Your task to perform on an android device: turn pop-ups on in chrome Image 0: 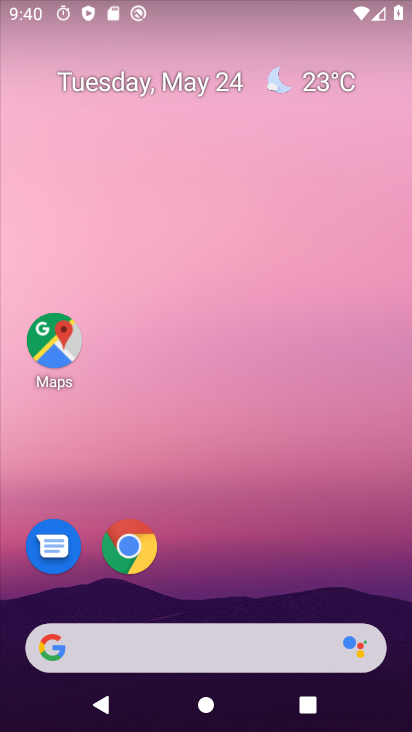
Step 0: click (130, 546)
Your task to perform on an android device: turn pop-ups on in chrome Image 1: 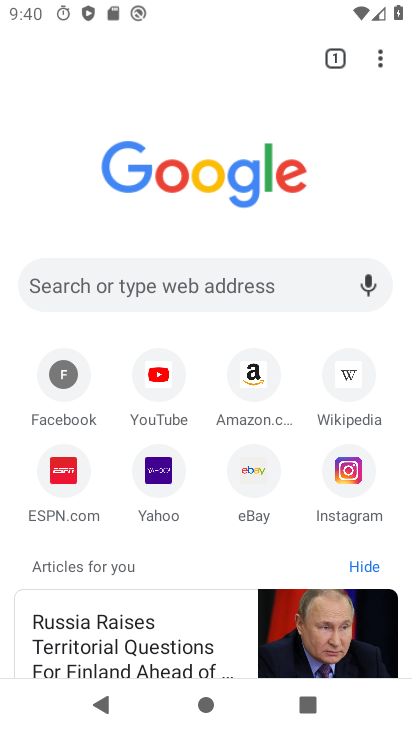
Step 1: click (370, 57)
Your task to perform on an android device: turn pop-ups on in chrome Image 2: 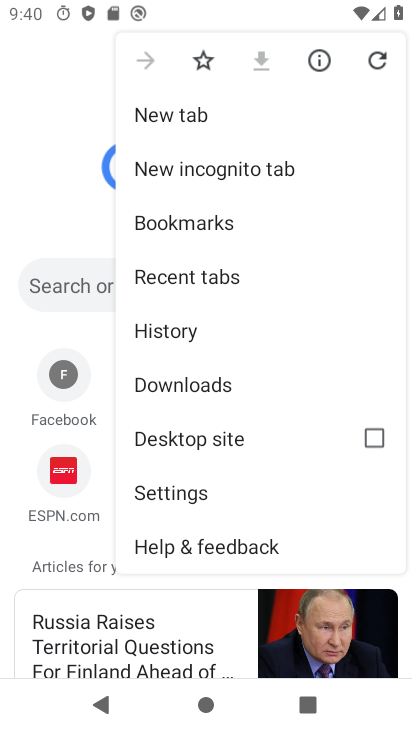
Step 2: click (203, 493)
Your task to perform on an android device: turn pop-ups on in chrome Image 3: 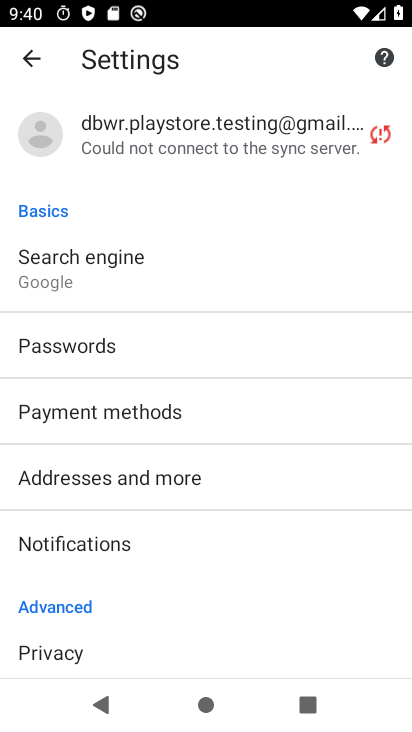
Step 3: drag from (244, 644) to (202, 210)
Your task to perform on an android device: turn pop-ups on in chrome Image 4: 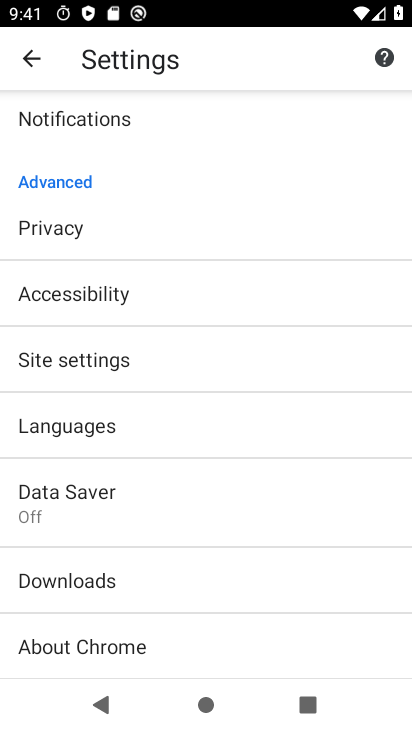
Step 4: click (98, 365)
Your task to perform on an android device: turn pop-ups on in chrome Image 5: 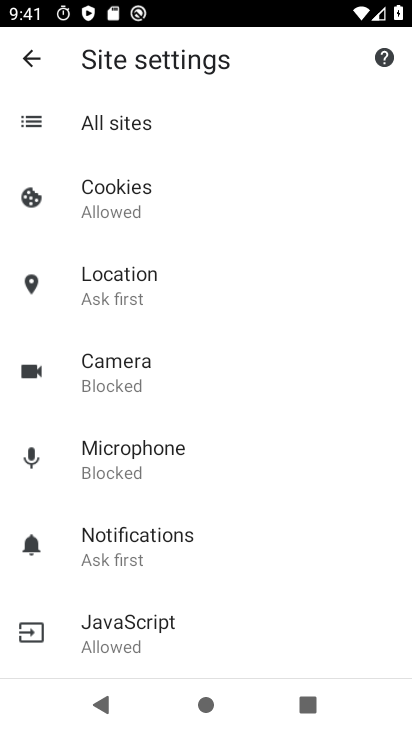
Step 5: drag from (220, 541) to (200, 233)
Your task to perform on an android device: turn pop-ups on in chrome Image 6: 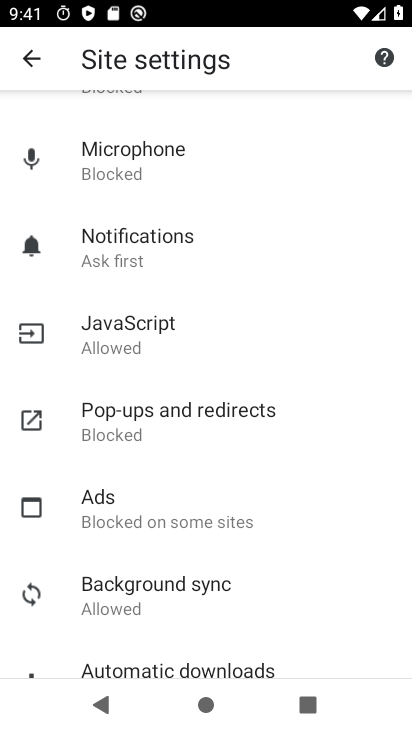
Step 6: click (132, 425)
Your task to perform on an android device: turn pop-ups on in chrome Image 7: 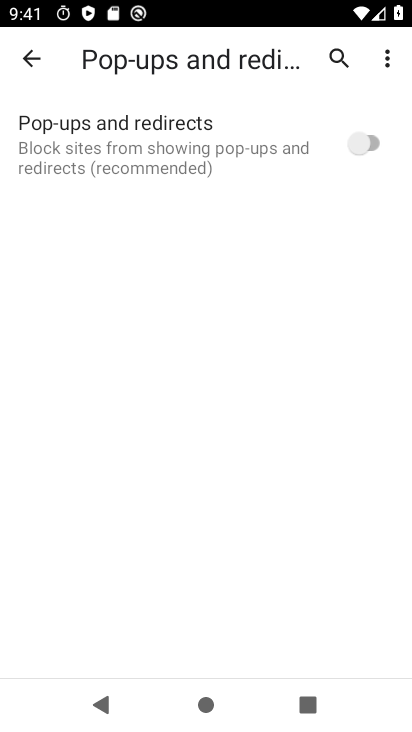
Step 7: click (365, 142)
Your task to perform on an android device: turn pop-ups on in chrome Image 8: 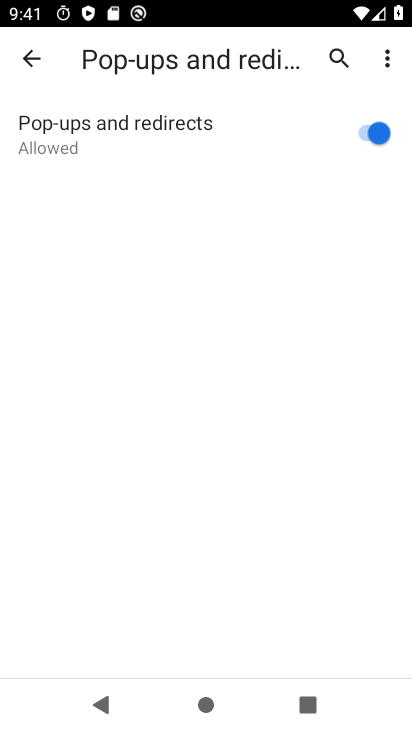
Step 8: task complete